Your task to perform on an android device: Go to display settings Image 0: 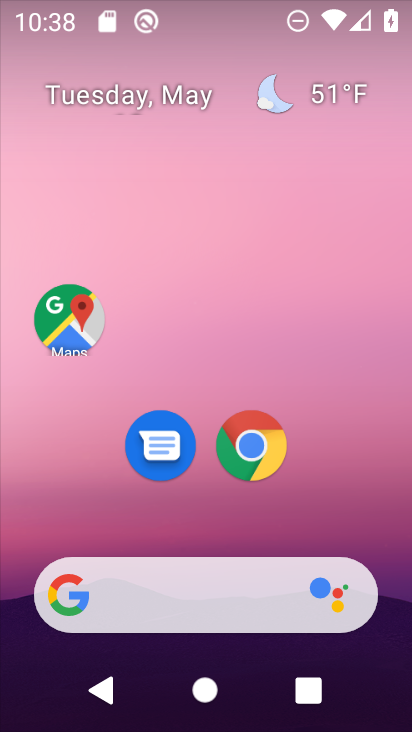
Step 0: drag from (165, 590) to (215, 5)
Your task to perform on an android device: Go to display settings Image 1: 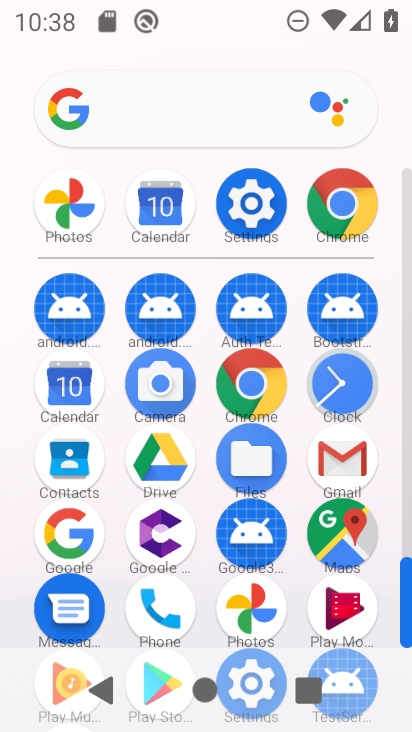
Step 1: click (255, 196)
Your task to perform on an android device: Go to display settings Image 2: 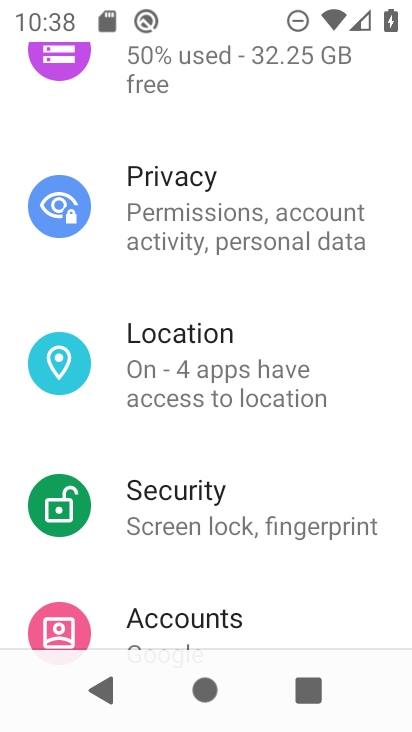
Step 2: drag from (198, 345) to (22, 2)
Your task to perform on an android device: Go to display settings Image 3: 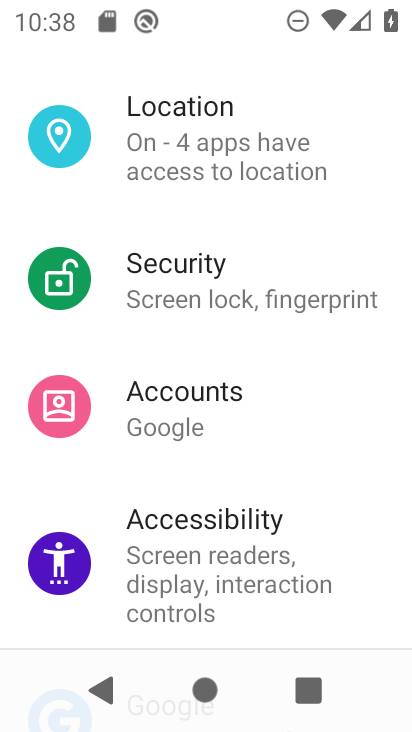
Step 3: drag from (189, 224) to (160, 717)
Your task to perform on an android device: Go to display settings Image 4: 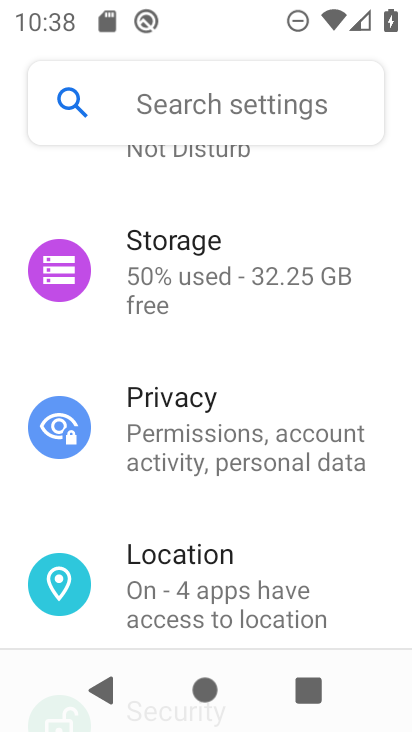
Step 4: drag from (199, 314) to (246, 728)
Your task to perform on an android device: Go to display settings Image 5: 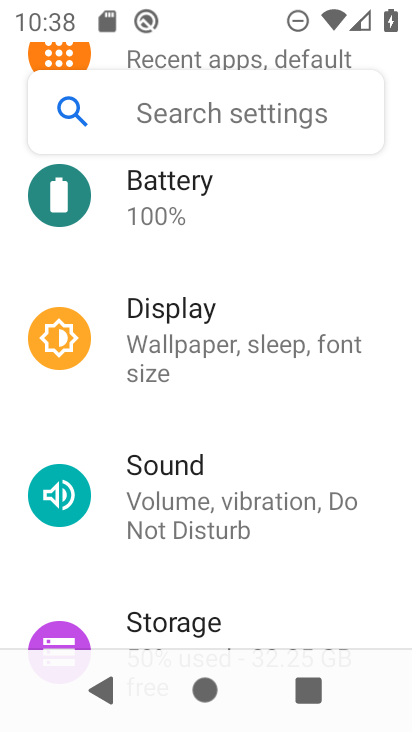
Step 5: click (176, 321)
Your task to perform on an android device: Go to display settings Image 6: 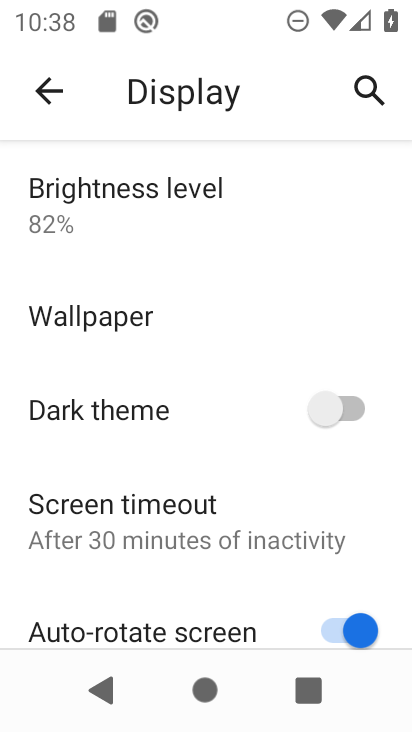
Step 6: task complete